Your task to perform on an android device: open app "Nova Launcher" Image 0: 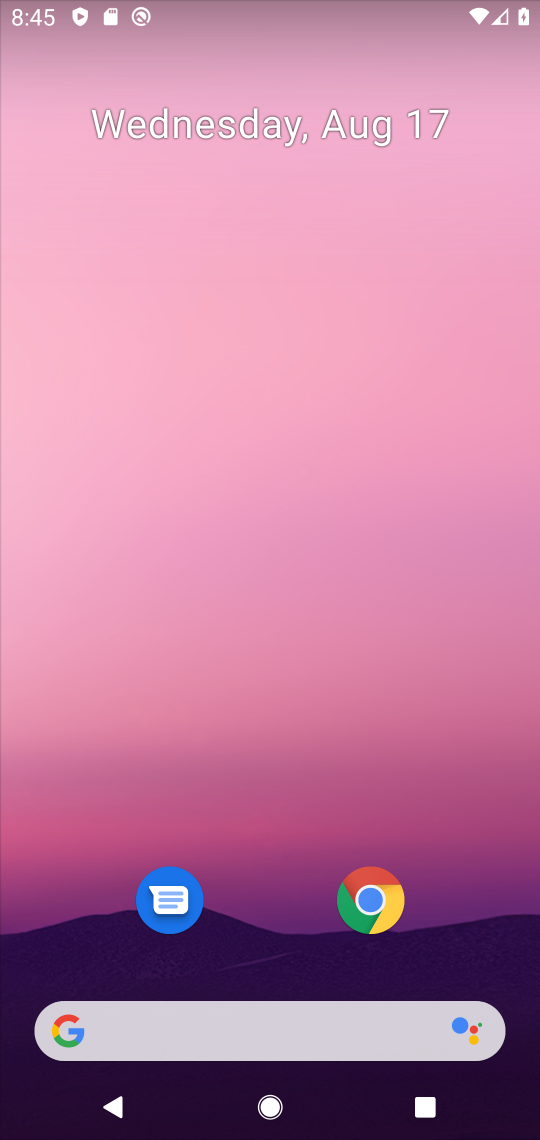
Step 0: drag from (282, 913) to (329, 232)
Your task to perform on an android device: open app "Nova Launcher" Image 1: 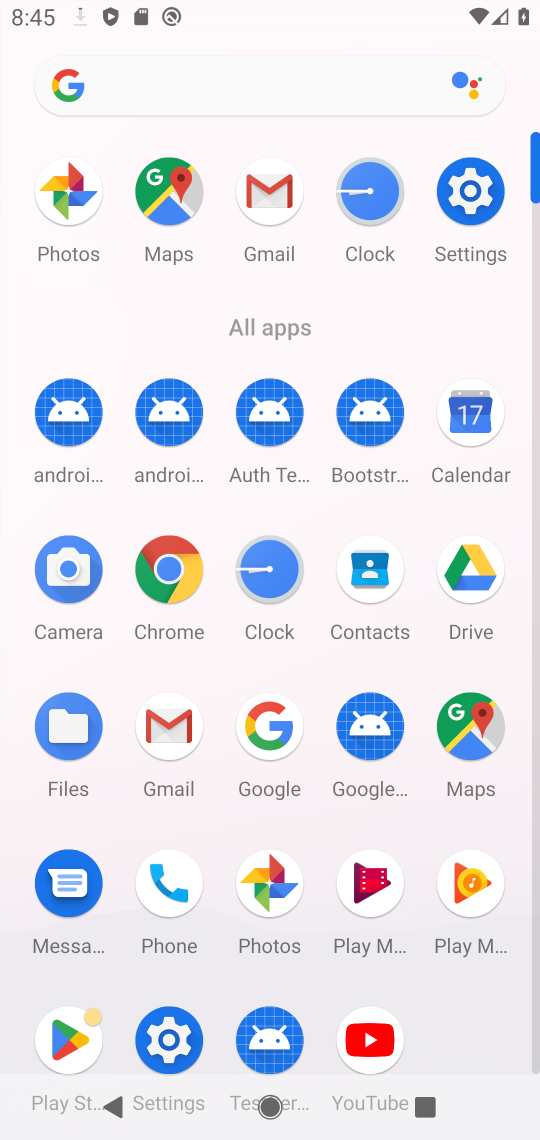
Step 1: task complete